Your task to perform on an android device: Check the settings for the Facebook app Image 0: 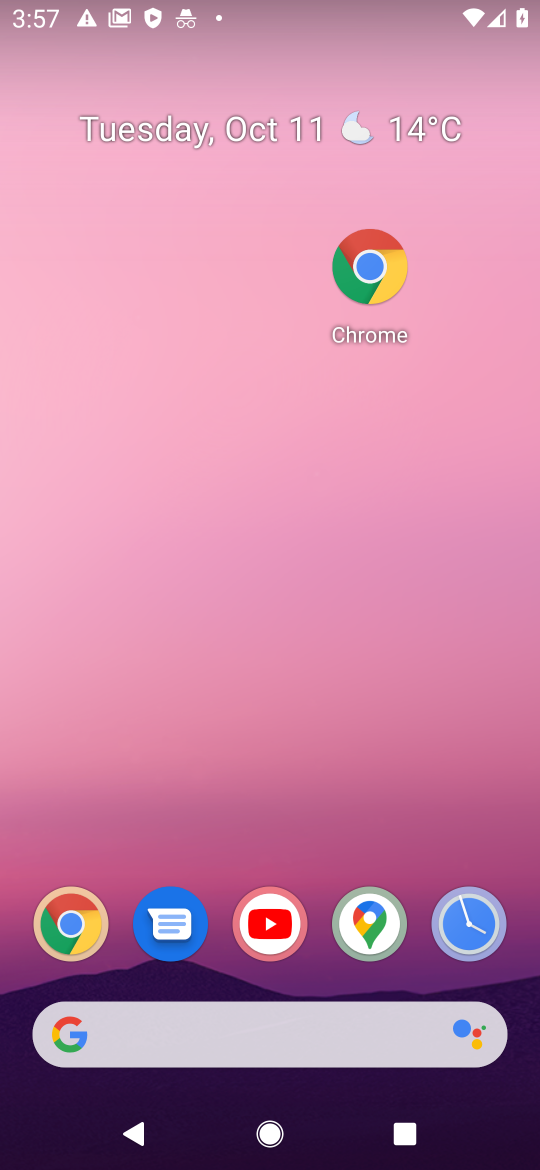
Step 0: drag from (335, 878) to (326, 66)
Your task to perform on an android device: Check the settings for the Facebook app Image 1: 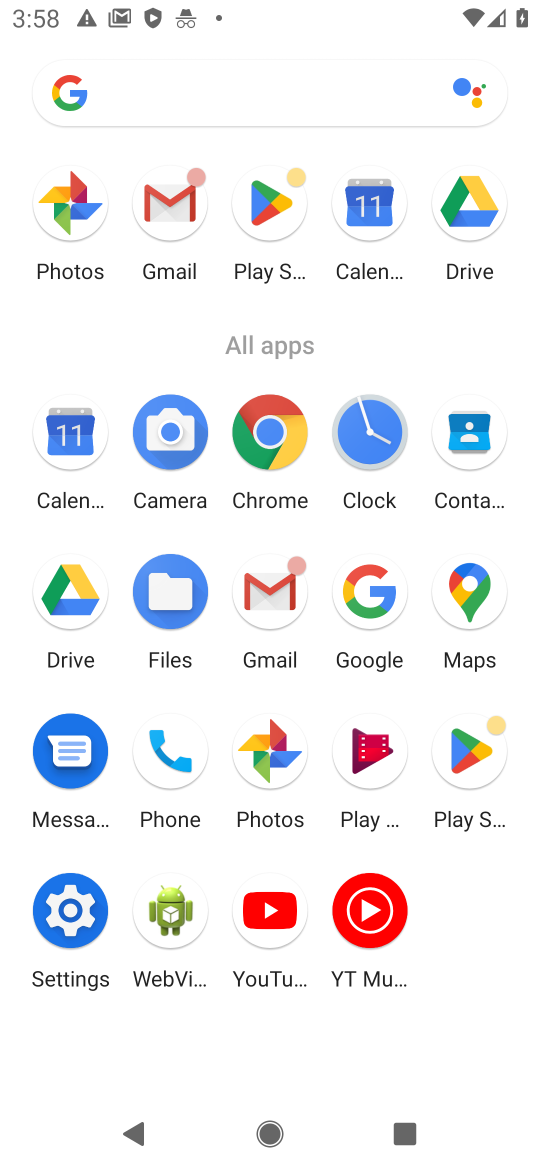
Step 1: task complete